Your task to perform on an android device: Open Google Chrome Image 0: 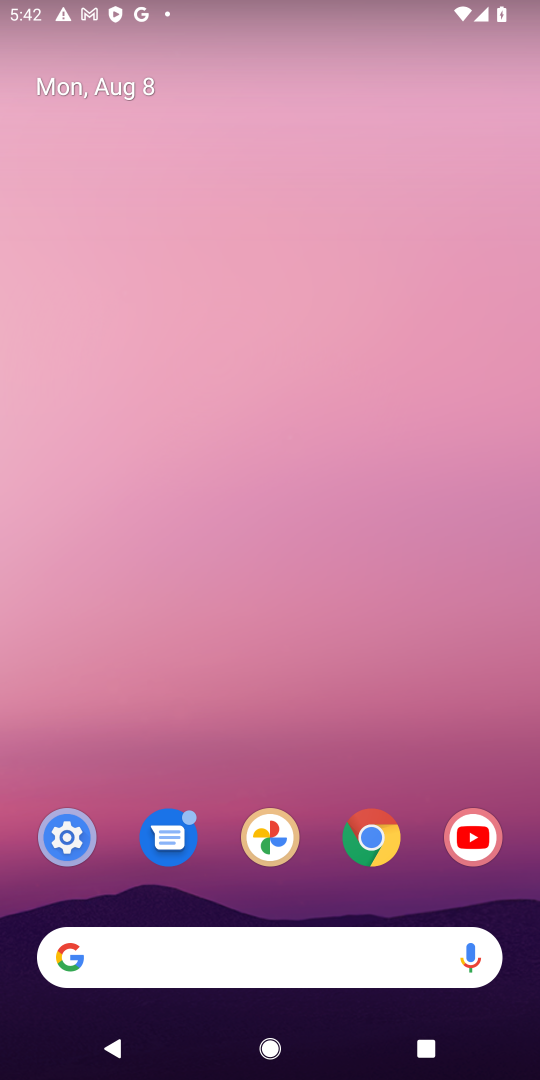
Step 0: drag from (244, 465) to (0, 300)
Your task to perform on an android device: Open Google Chrome Image 1: 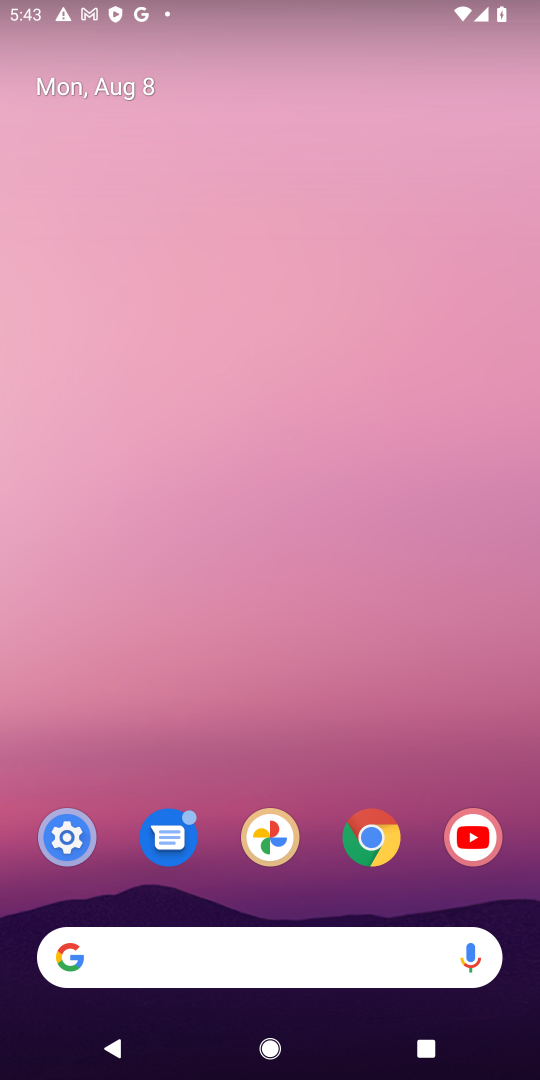
Step 1: drag from (336, 936) to (497, 2)
Your task to perform on an android device: Open Google Chrome Image 2: 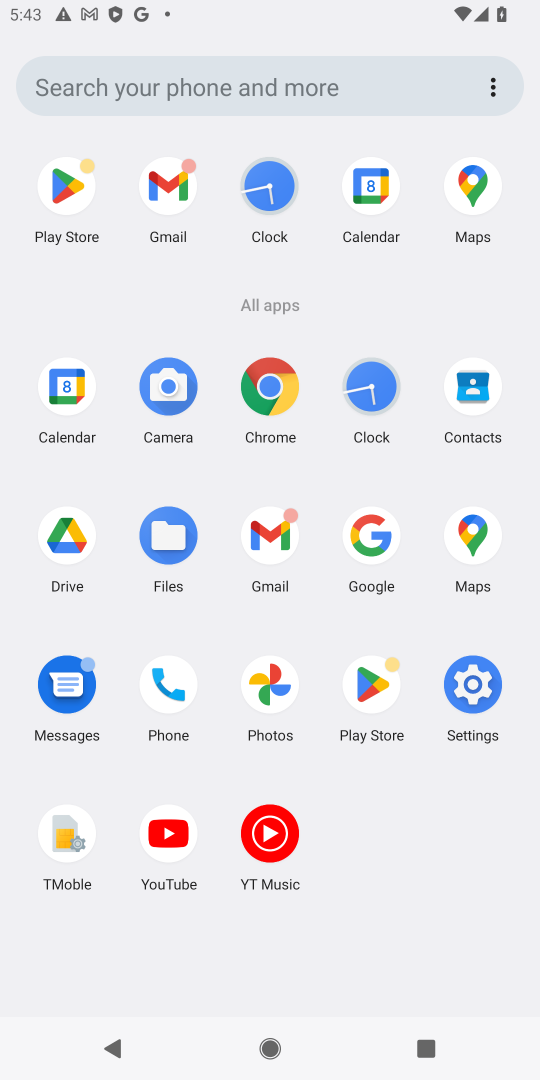
Step 2: click (280, 416)
Your task to perform on an android device: Open Google Chrome Image 3: 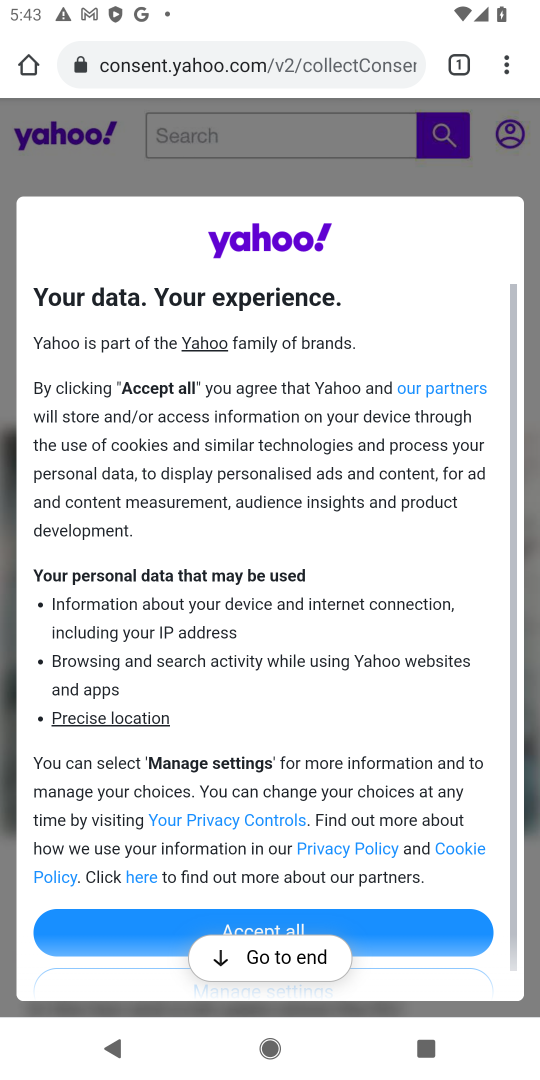
Step 3: click (494, 82)
Your task to perform on an android device: Open Google Chrome Image 4: 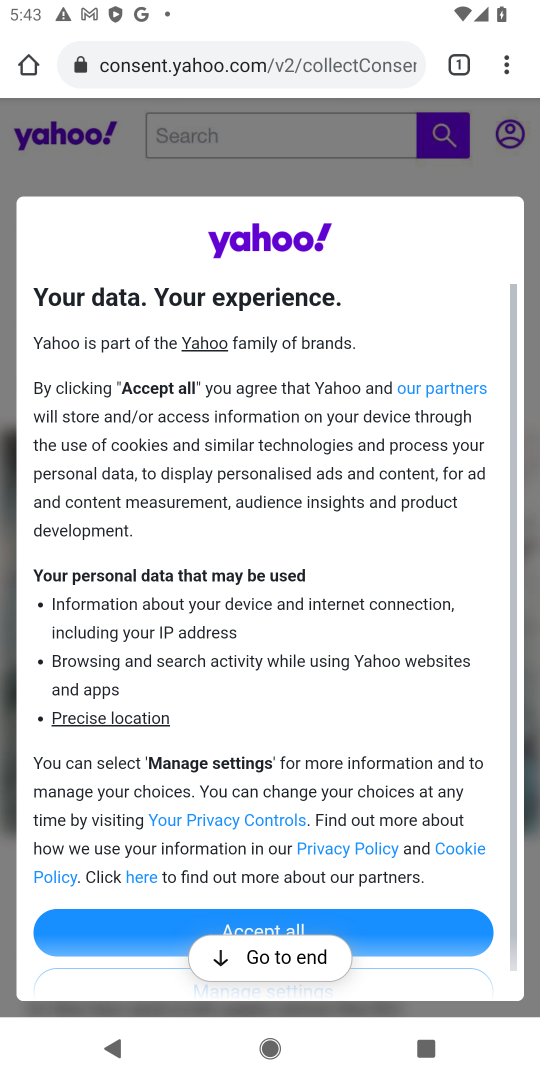
Step 4: task complete